Your task to perform on an android device: Open the calendar and show me this week's events? Image 0: 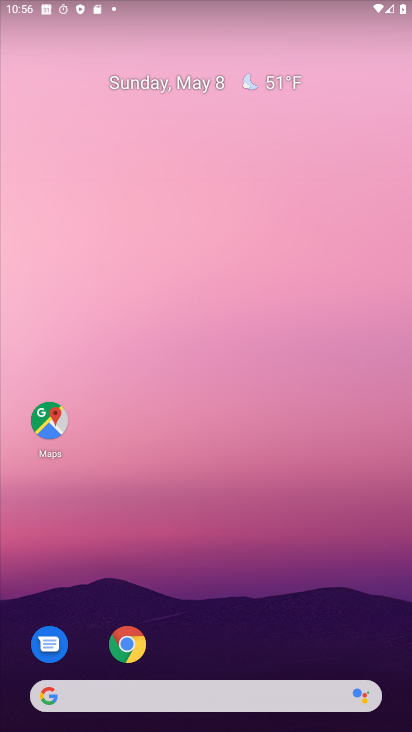
Step 0: click (241, 272)
Your task to perform on an android device: Open the calendar and show me this week's events? Image 1: 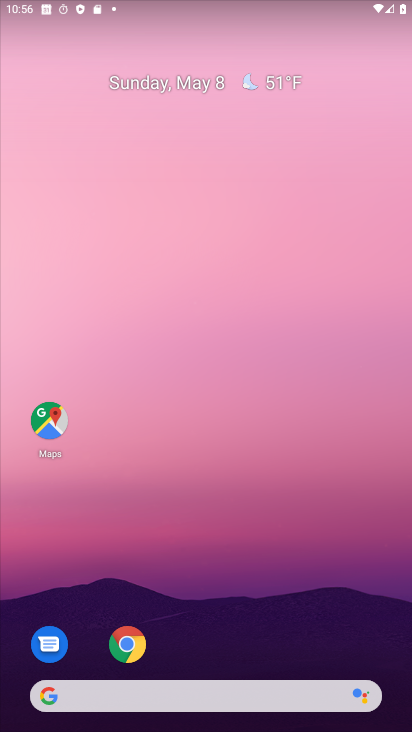
Step 1: drag from (199, 636) to (236, 191)
Your task to perform on an android device: Open the calendar and show me this week's events? Image 2: 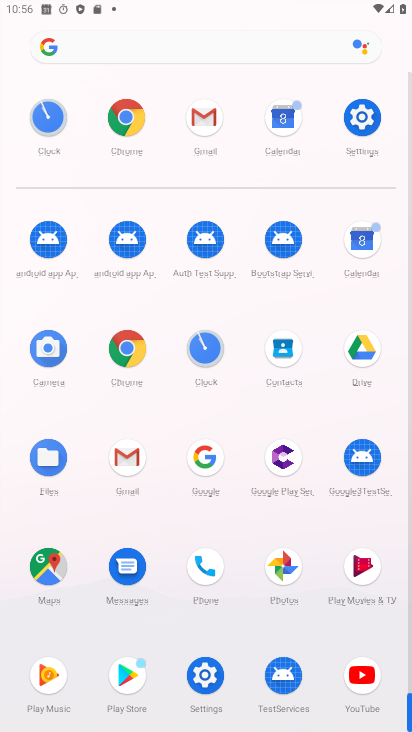
Step 2: click (369, 241)
Your task to perform on an android device: Open the calendar and show me this week's events? Image 3: 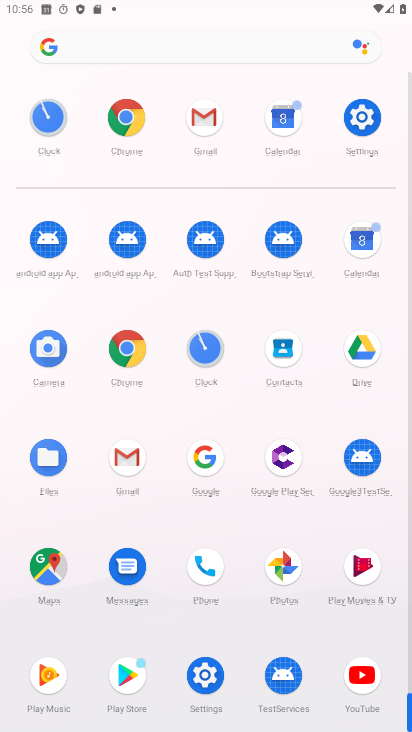
Step 3: click (369, 241)
Your task to perform on an android device: Open the calendar and show me this week's events? Image 4: 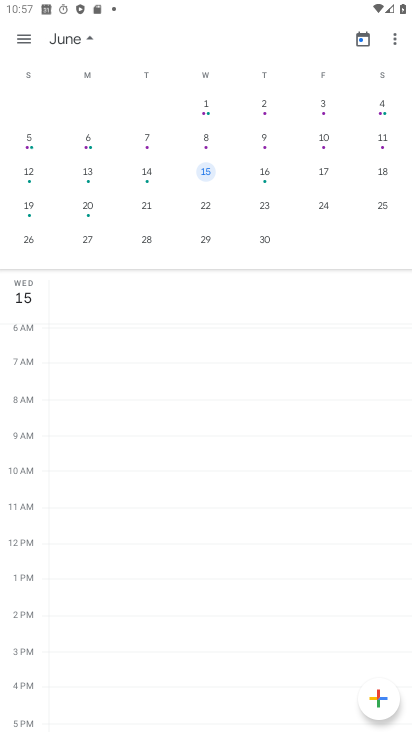
Step 4: click (83, 40)
Your task to perform on an android device: Open the calendar and show me this week's events? Image 5: 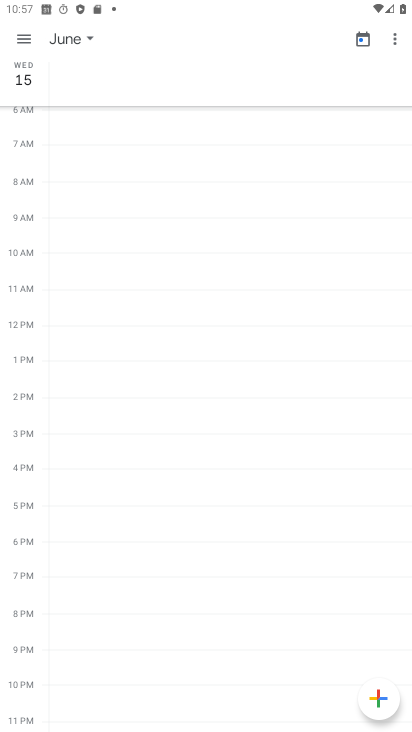
Step 5: click (73, 36)
Your task to perform on an android device: Open the calendar and show me this week's events? Image 6: 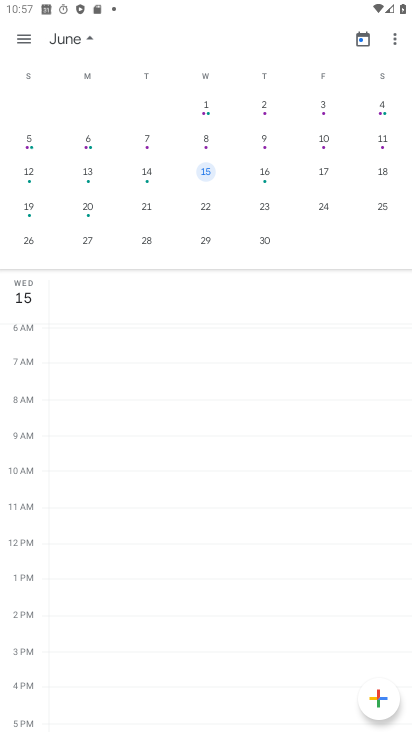
Step 6: drag from (47, 157) to (397, 168)
Your task to perform on an android device: Open the calendar and show me this week's events? Image 7: 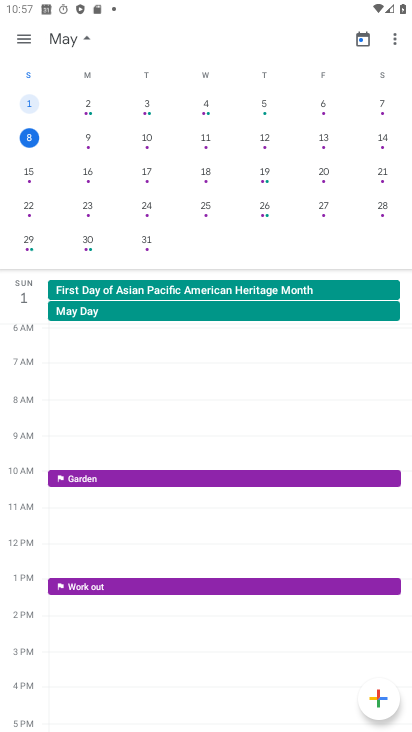
Step 7: click (22, 135)
Your task to perform on an android device: Open the calendar and show me this week's events? Image 8: 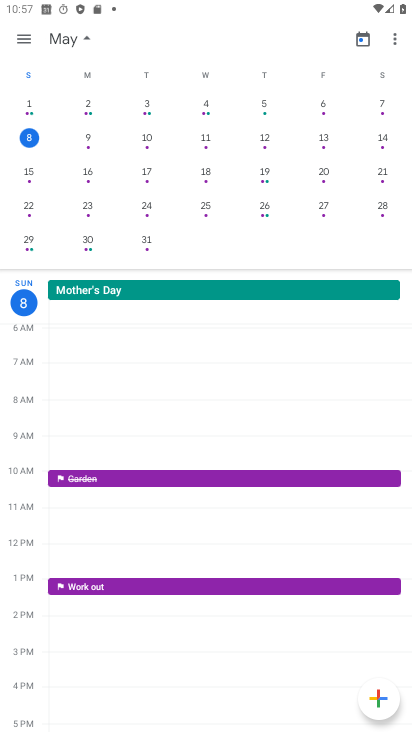
Step 8: task complete